Your task to perform on an android device: Go to privacy settings Image 0: 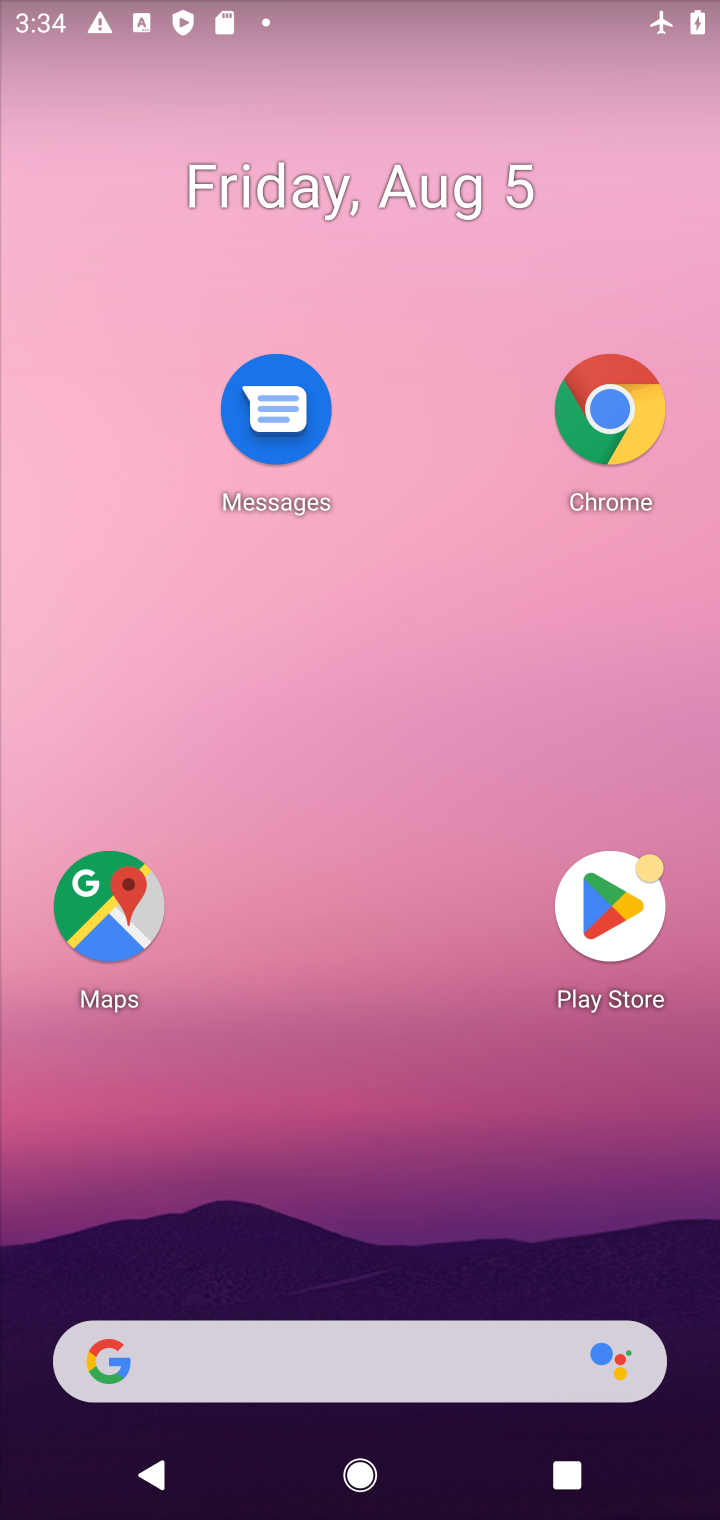
Step 0: drag from (392, 1188) to (353, 151)
Your task to perform on an android device: Go to privacy settings Image 1: 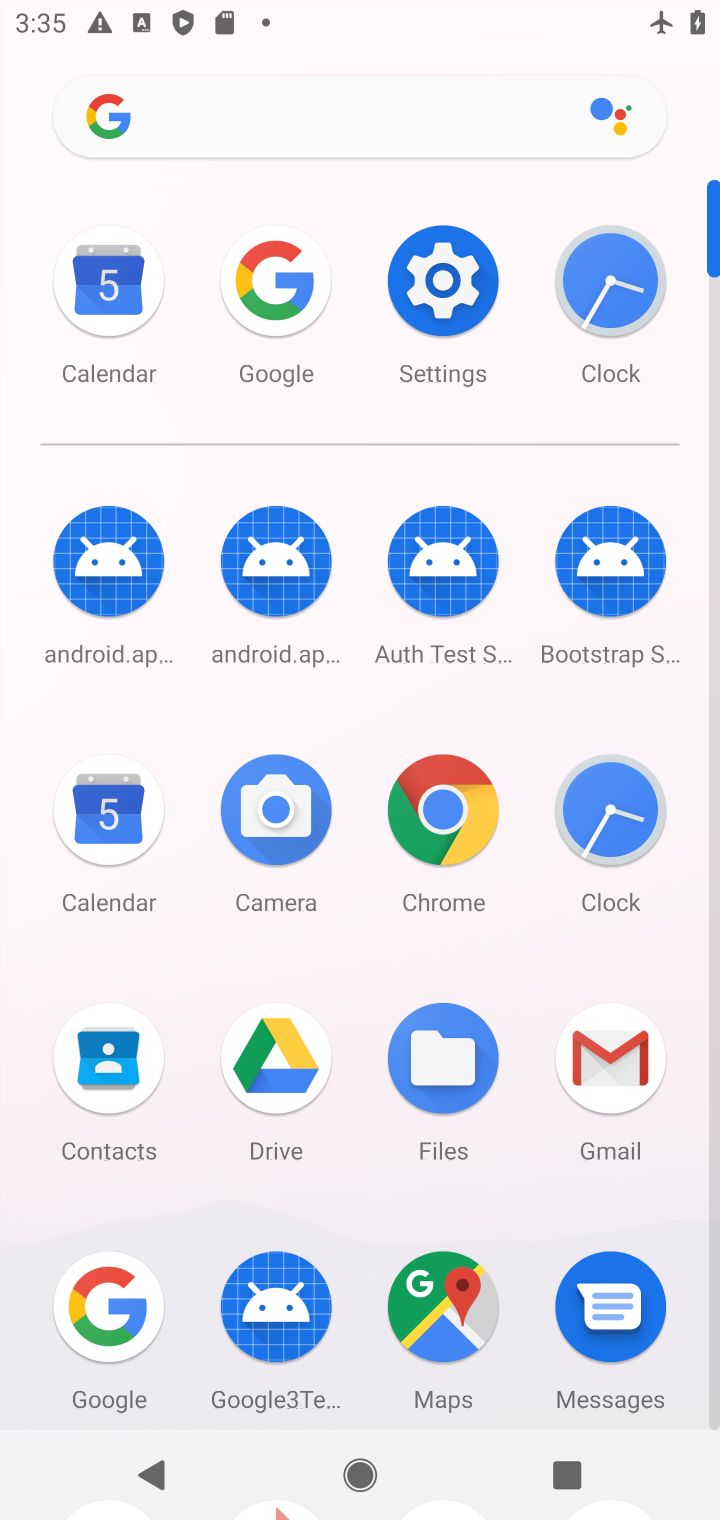
Step 1: click (429, 304)
Your task to perform on an android device: Go to privacy settings Image 2: 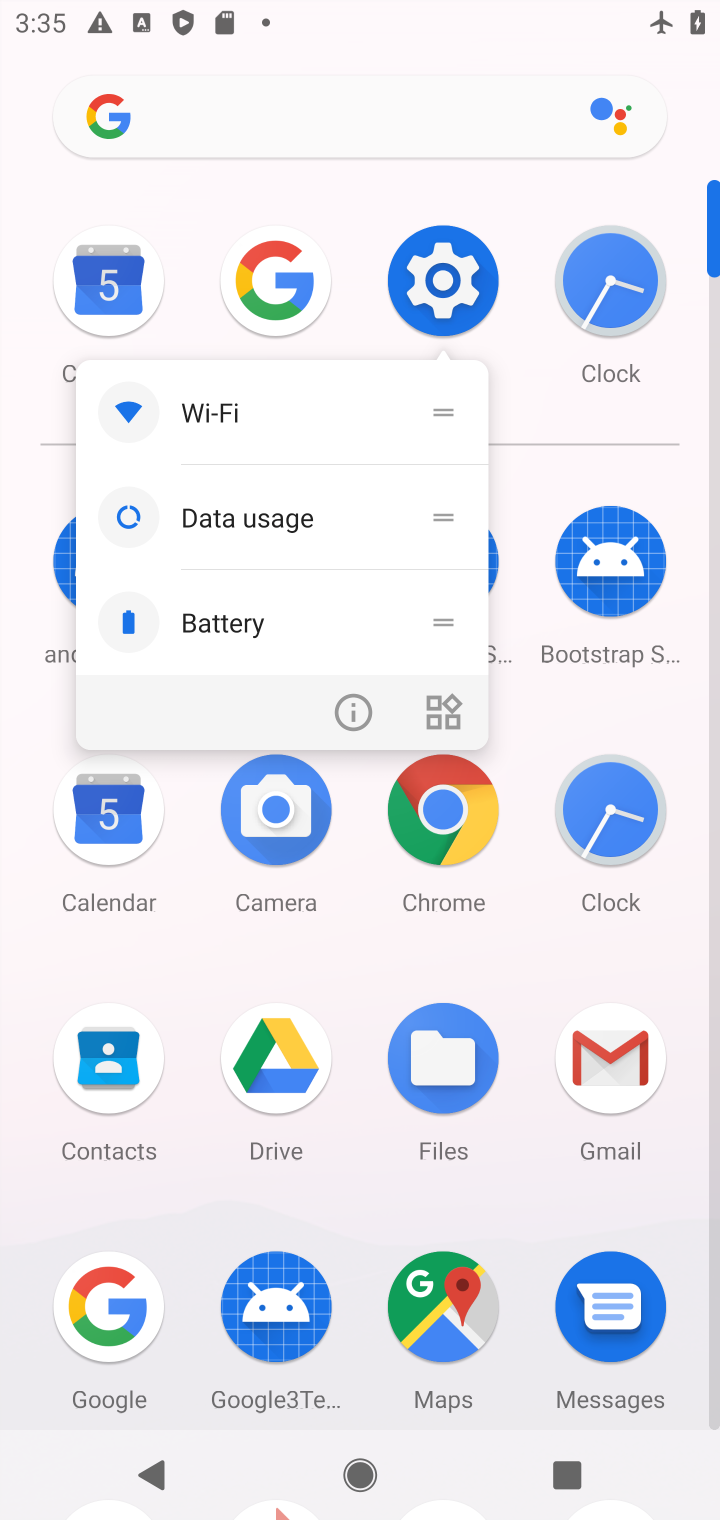
Step 2: click (429, 304)
Your task to perform on an android device: Go to privacy settings Image 3: 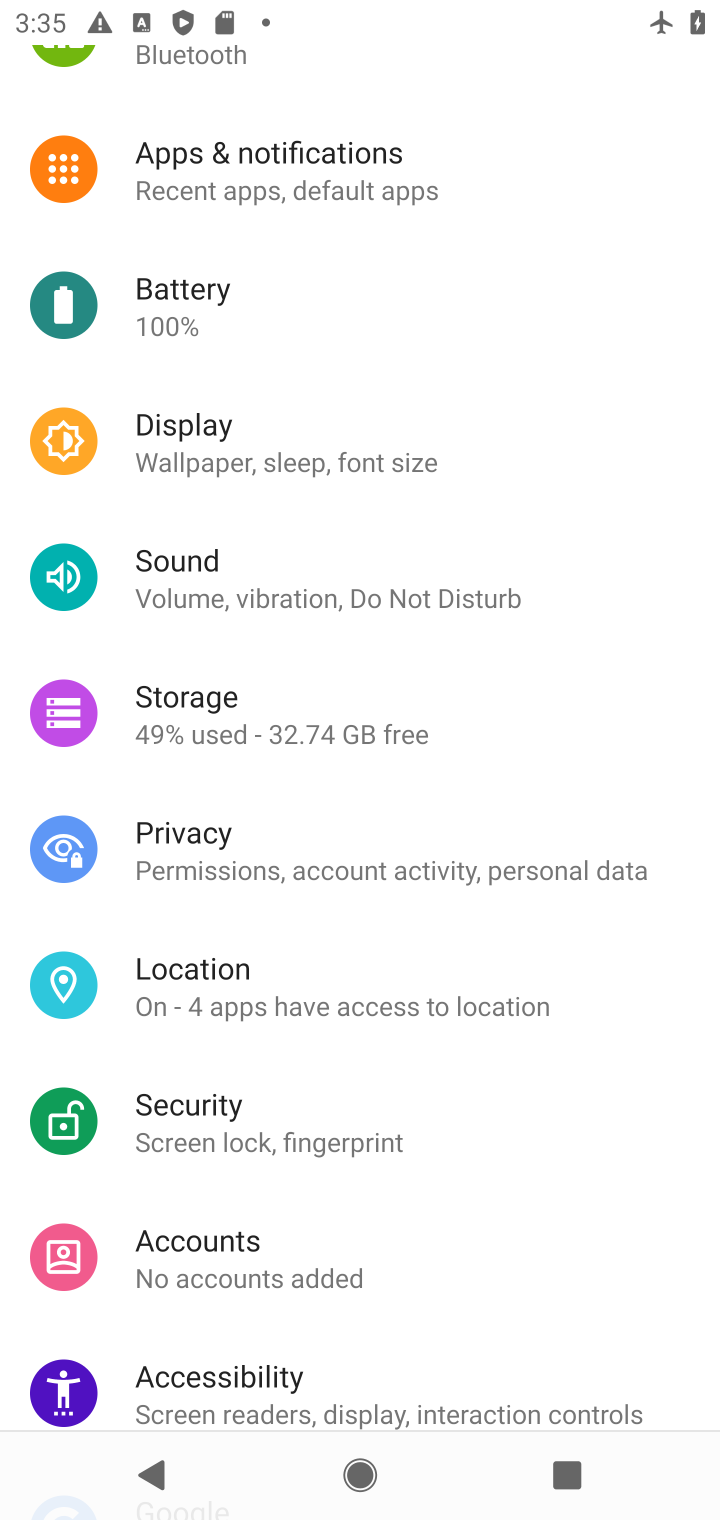
Step 3: click (284, 834)
Your task to perform on an android device: Go to privacy settings Image 4: 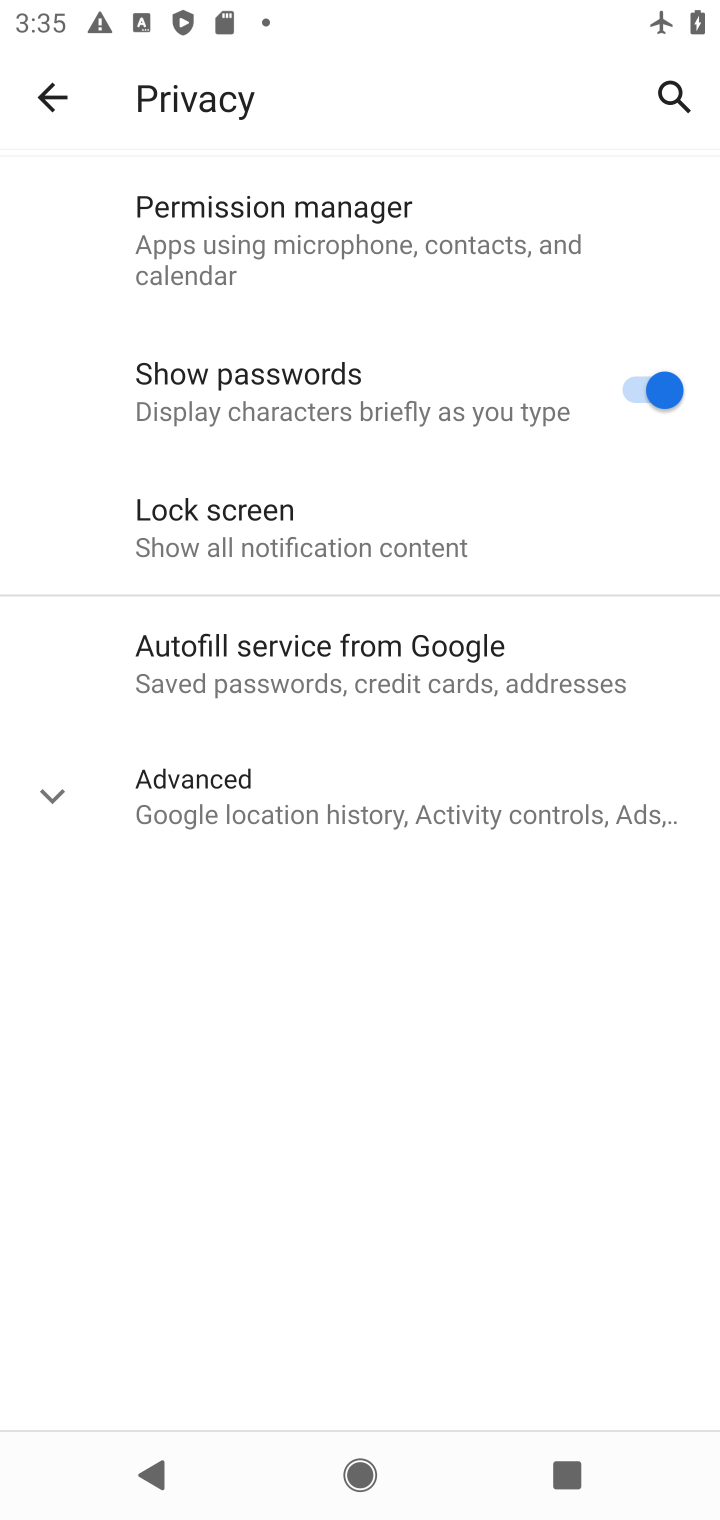
Step 4: task complete